Your task to perform on an android device: Go to location settings Image 0: 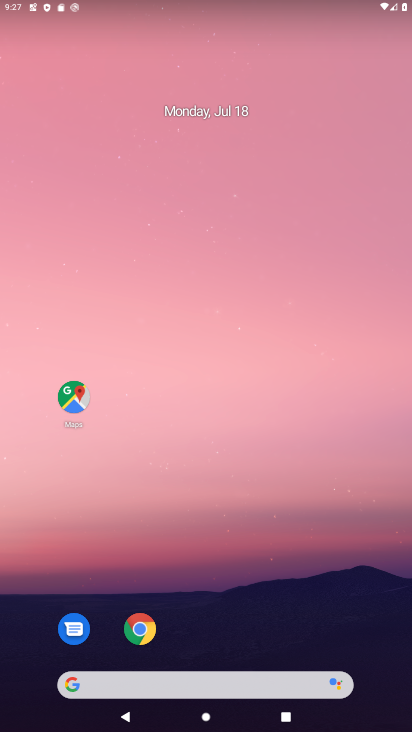
Step 0: drag from (266, 328) to (322, 90)
Your task to perform on an android device: Go to location settings Image 1: 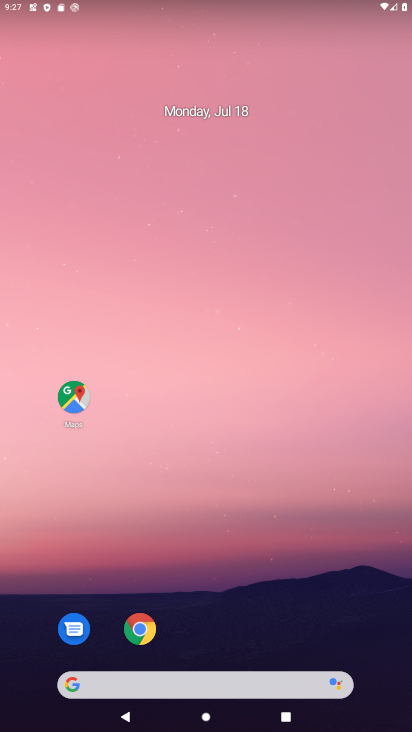
Step 1: drag from (302, 629) to (268, 30)
Your task to perform on an android device: Go to location settings Image 2: 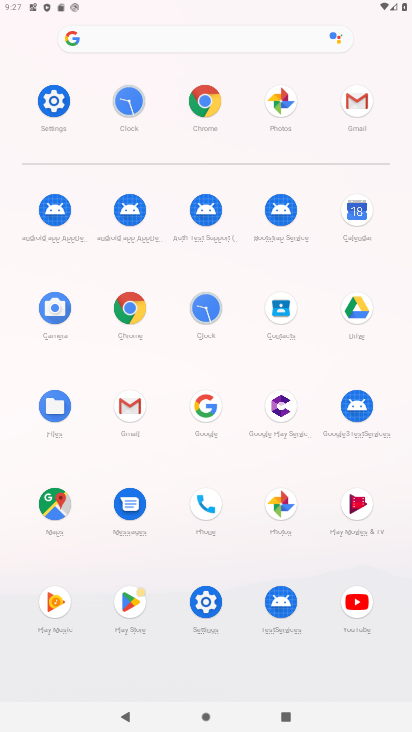
Step 2: click (55, 102)
Your task to perform on an android device: Go to location settings Image 3: 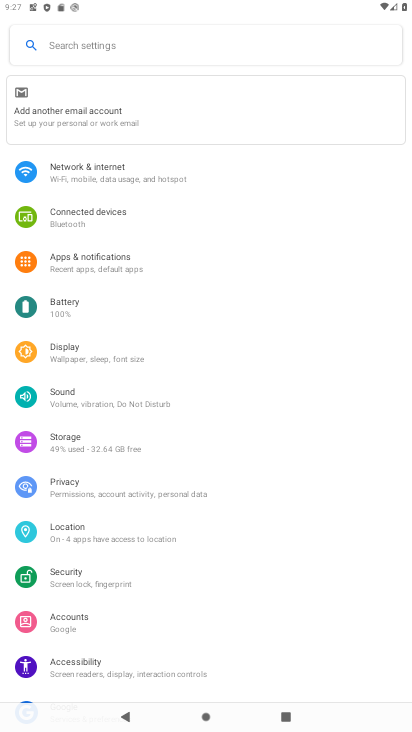
Step 3: click (83, 527)
Your task to perform on an android device: Go to location settings Image 4: 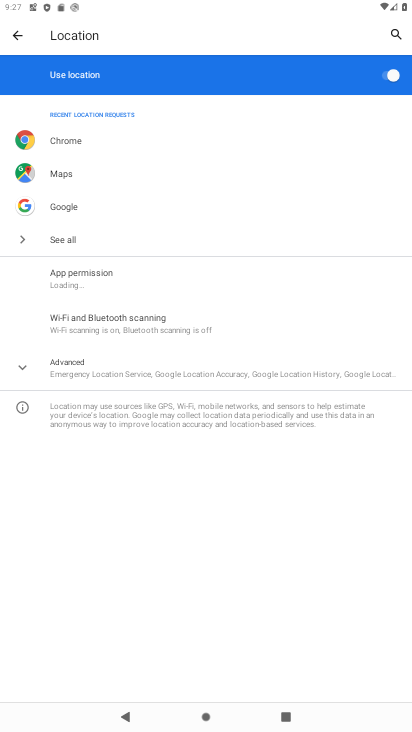
Step 4: task complete